Your task to perform on an android device: open a bookmark in the chrome app Image 0: 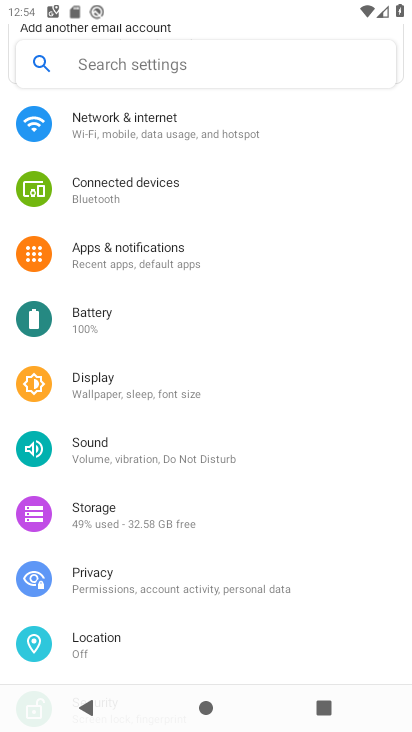
Step 0: press home button
Your task to perform on an android device: open a bookmark in the chrome app Image 1: 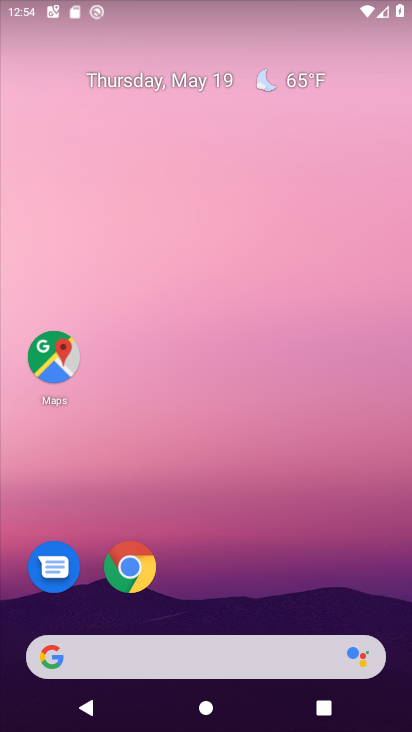
Step 1: click (139, 564)
Your task to perform on an android device: open a bookmark in the chrome app Image 2: 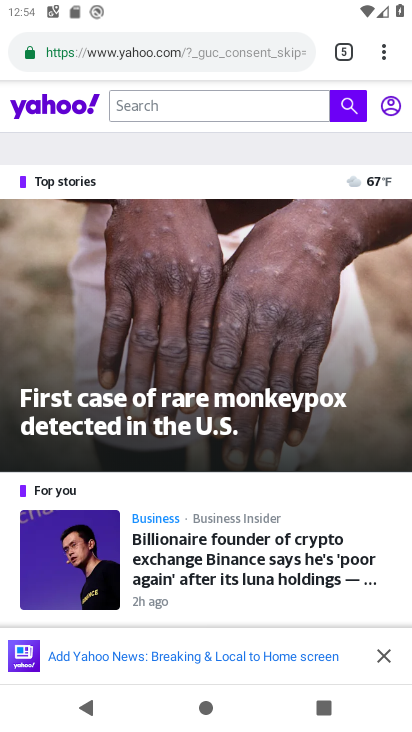
Step 2: click (385, 51)
Your task to perform on an android device: open a bookmark in the chrome app Image 3: 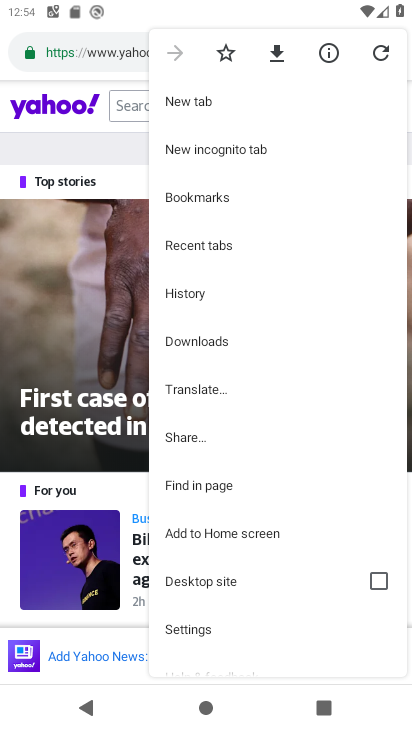
Step 3: click (211, 195)
Your task to perform on an android device: open a bookmark in the chrome app Image 4: 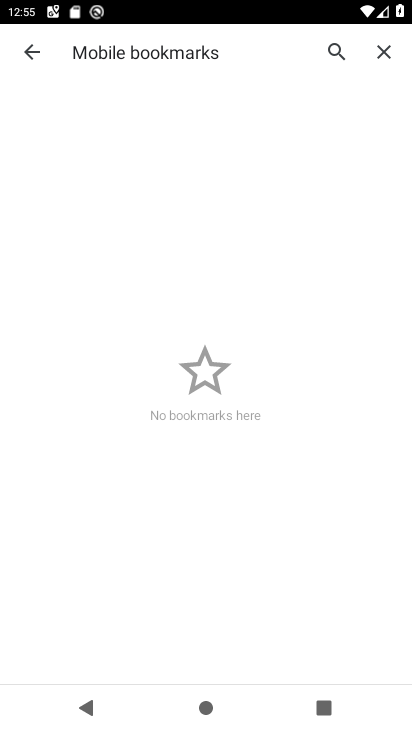
Step 4: task complete